Your task to perform on an android device: turn on the 24-hour format for clock Image 0: 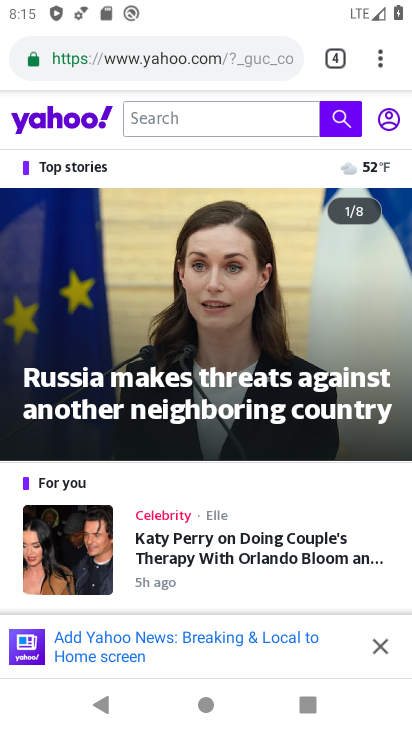
Step 0: press back button
Your task to perform on an android device: turn on the 24-hour format for clock Image 1: 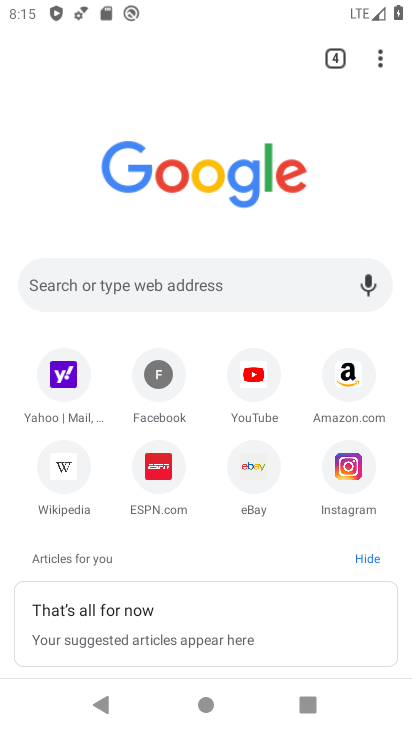
Step 1: press back button
Your task to perform on an android device: turn on the 24-hour format for clock Image 2: 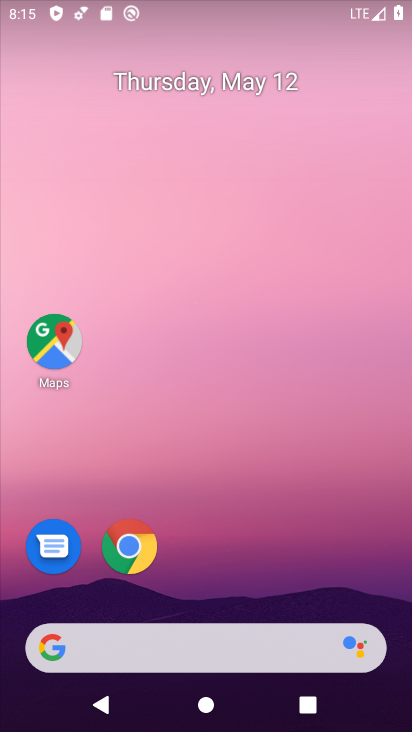
Step 2: drag from (180, 576) to (275, 110)
Your task to perform on an android device: turn on the 24-hour format for clock Image 3: 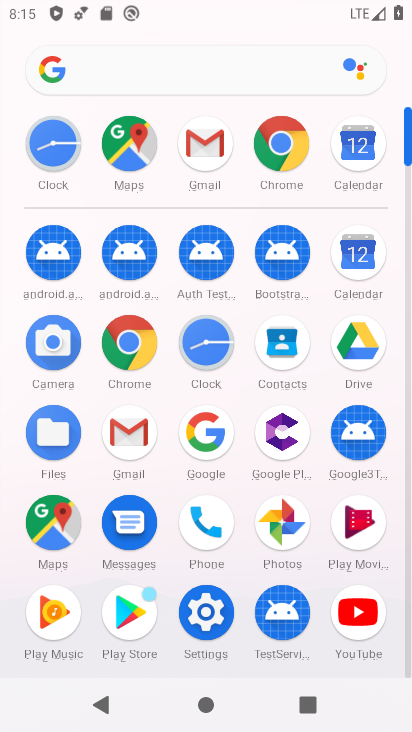
Step 3: click (210, 355)
Your task to perform on an android device: turn on the 24-hour format for clock Image 4: 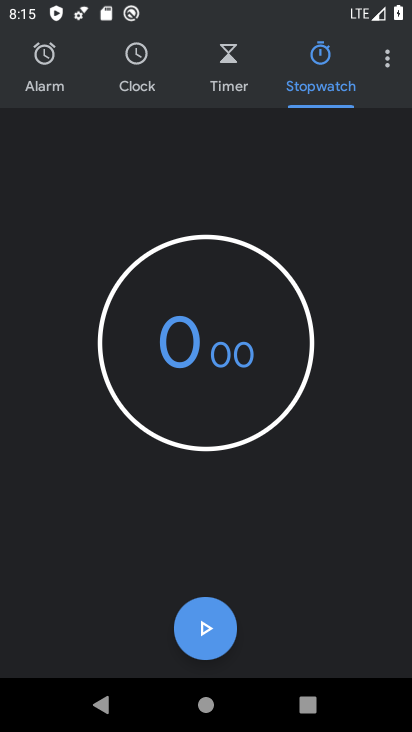
Step 4: click (390, 55)
Your task to perform on an android device: turn on the 24-hour format for clock Image 5: 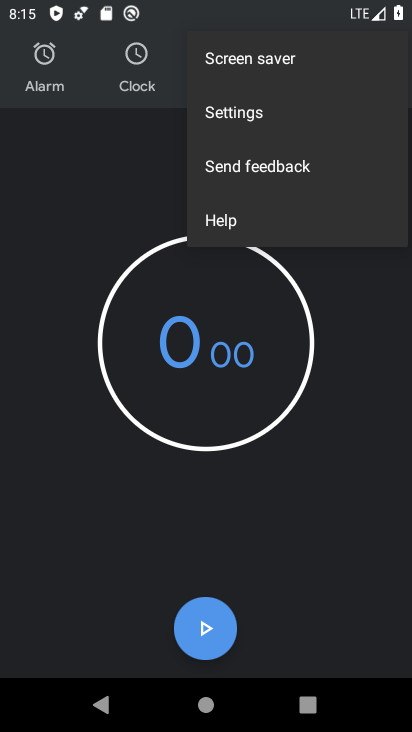
Step 5: click (228, 121)
Your task to perform on an android device: turn on the 24-hour format for clock Image 6: 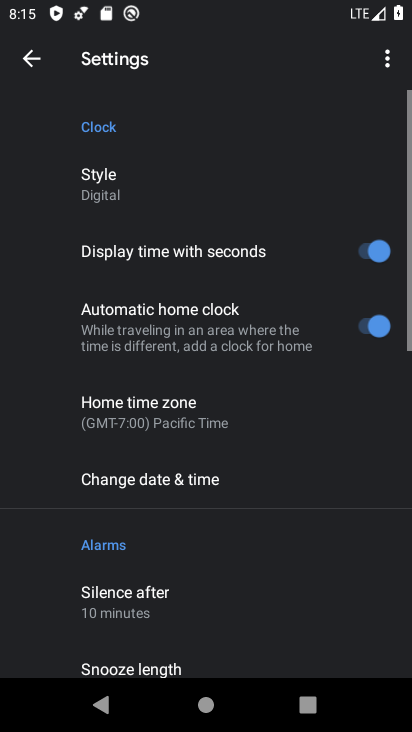
Step 6: click (130, 487)
Your task to perform on an android device: turn on the 24-hour format for clock Image 7: 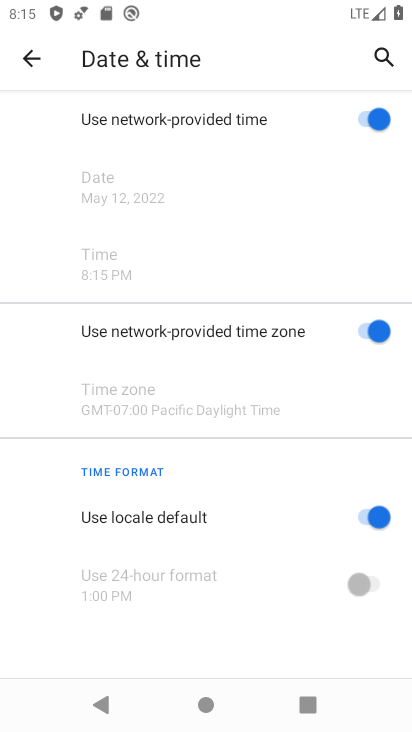
Step 7: click (384, 518)
Your task to perform on an android device: turn on the 24-hour format for clock Image 8: 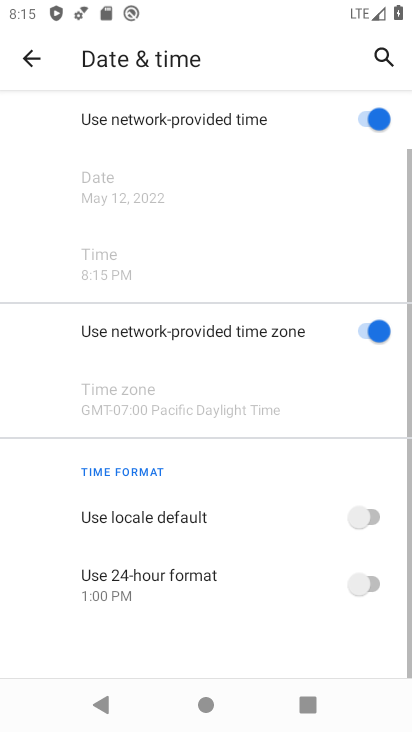
Step 8: click (361, 582)
Your task to perform on an android device: turn on the 24-hour format for clock Image 9: 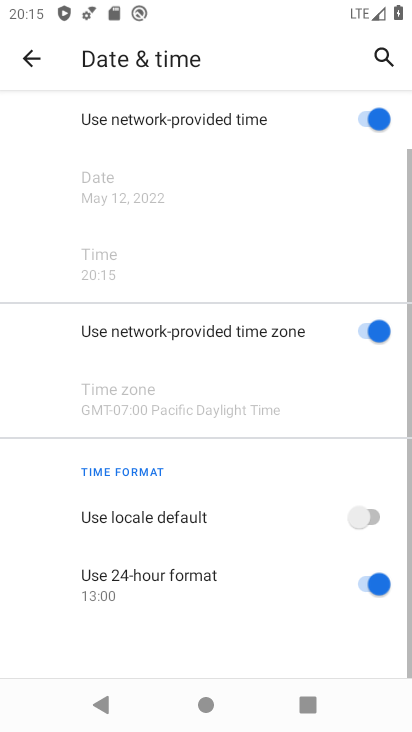
Step 9: task complete